Your task to perform on an android device: Go to location settings Image 0: 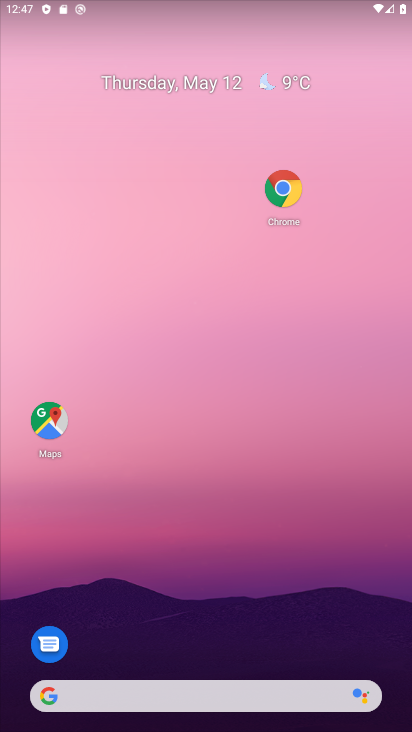
Step 0: drag from (171, 660) to (252, 163)
Your task to perform on an android device: Go to location settings Image 1: 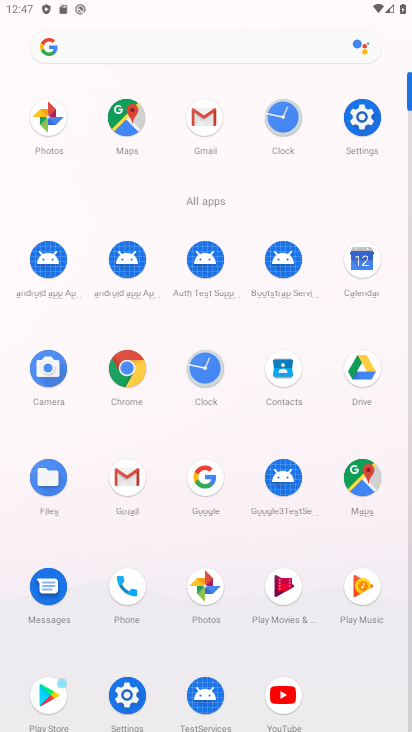
Step 1: drag from (184, 717) to (233, 489)
Your task to perform on an android device: Go to location settings Image 2: 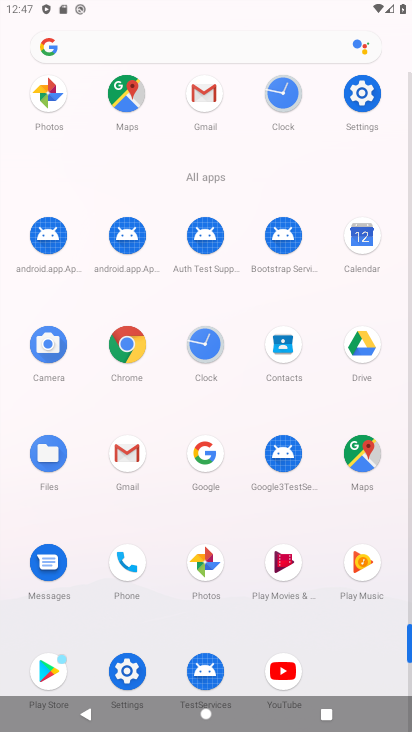
Step 2: click (123, 656)
Your task to perform on an android device: Go to location settings Image 3: 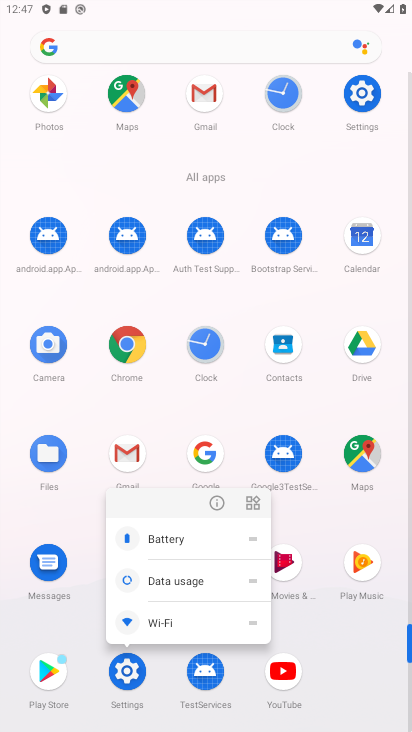
Step 3: click (125, 687)
Your task to perform on an android device: Go to location settings Image 4: 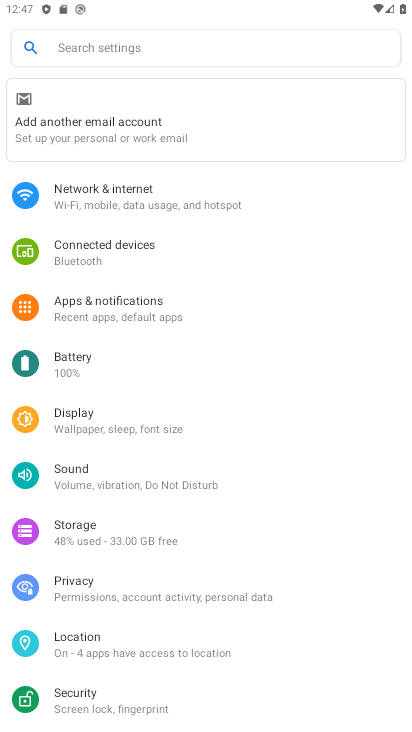
Step 4: drag from (117, 670) to (205, 460)
Your task to perform on an android device: Go to location settings Image 5: 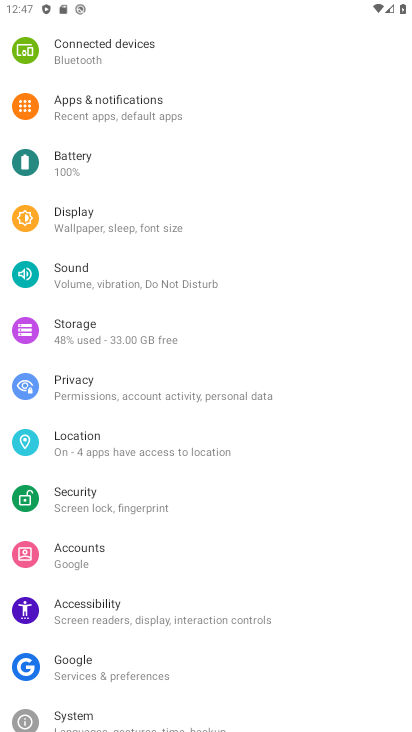
Step 5: click (103, 438)
Your task to perform on an android device: Go to location settings Image 6: 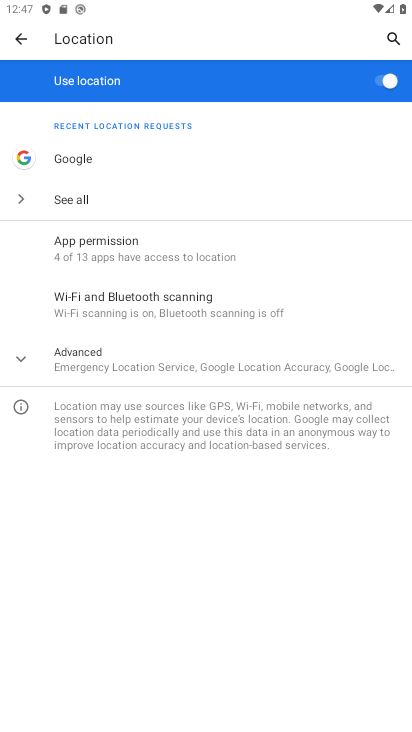
Step 6: task complete